Your task to perform on an android device: open app "Google News" (install if not already installed) Image 0: 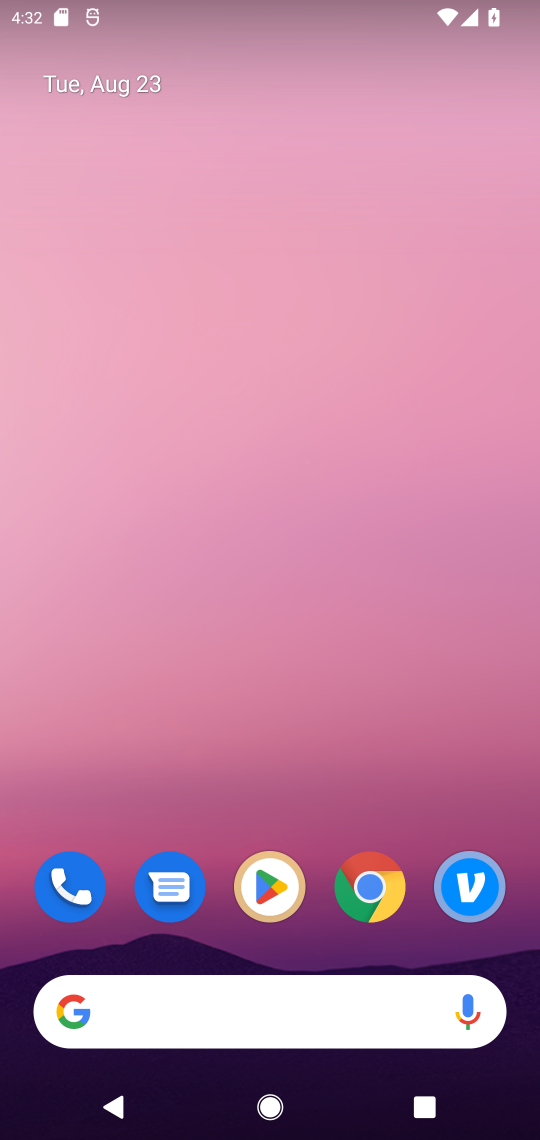
Step 0: click (277, 891)
Your task to perform on an android device: open app "Google News" (install if not already installed) Image 1: 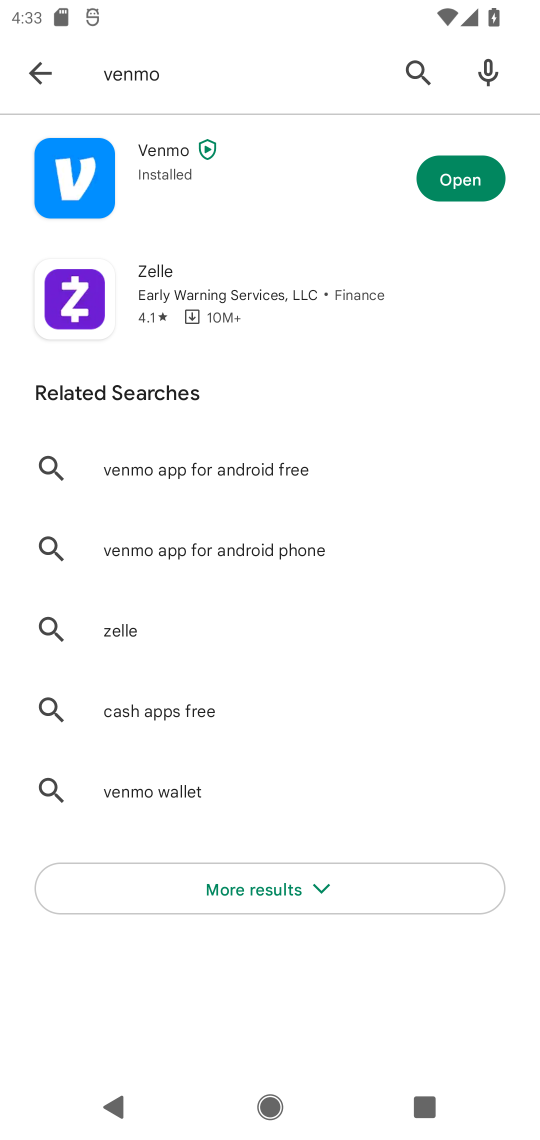
Step 1: click (48, 78)
Your task to perform on an android device: open app "Google News" (install if not already installed) Image 2: 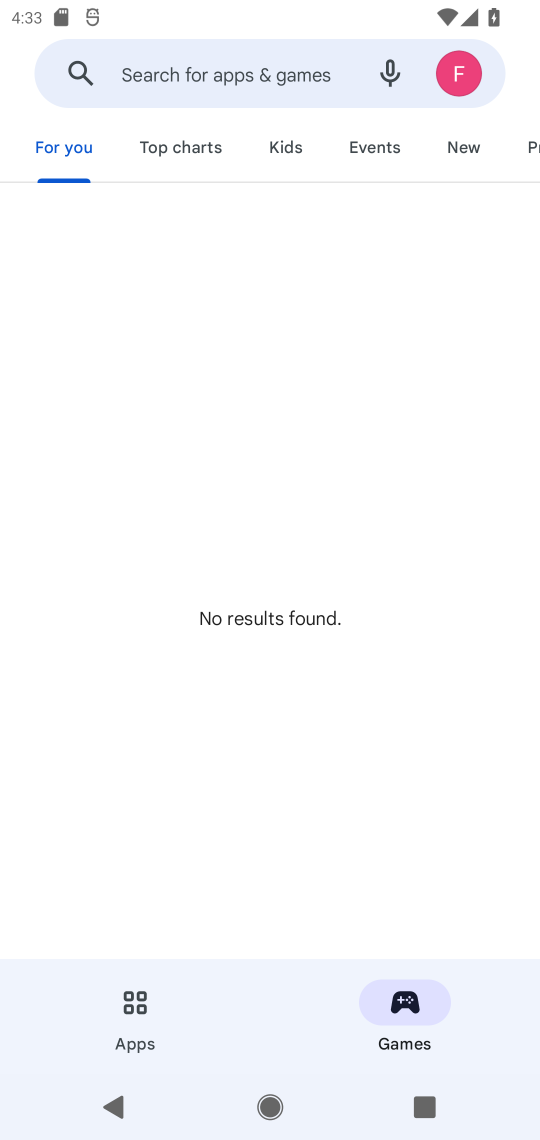
Step 2: click (161, 75)
Your task to perform on an android device: open app "Google News" (install if not already installed) Image 3: 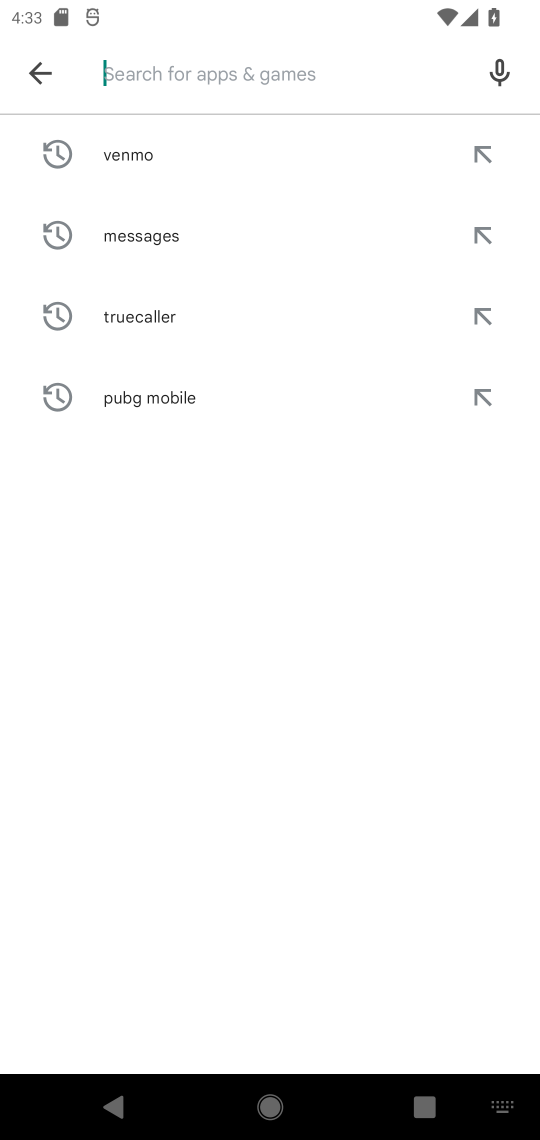
Step 3: type "Google News"
Your task to perform on an android device: open app "Google News" (install if not already installed) Image 4: 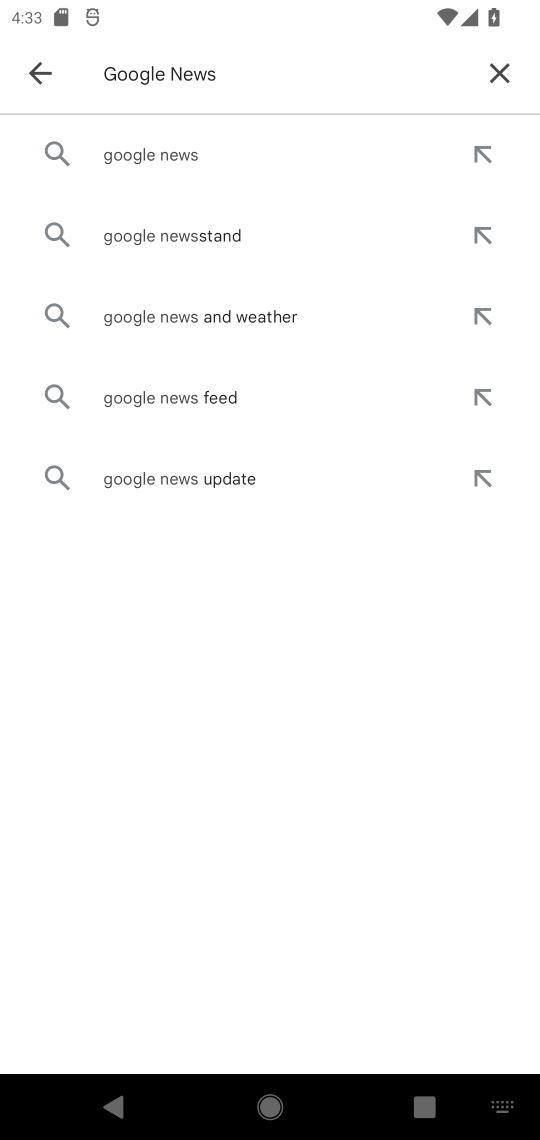
Step 4: click (147, 153)
Your task to perform on an android device: open app "Google News" (install if not already installed) Image 5: 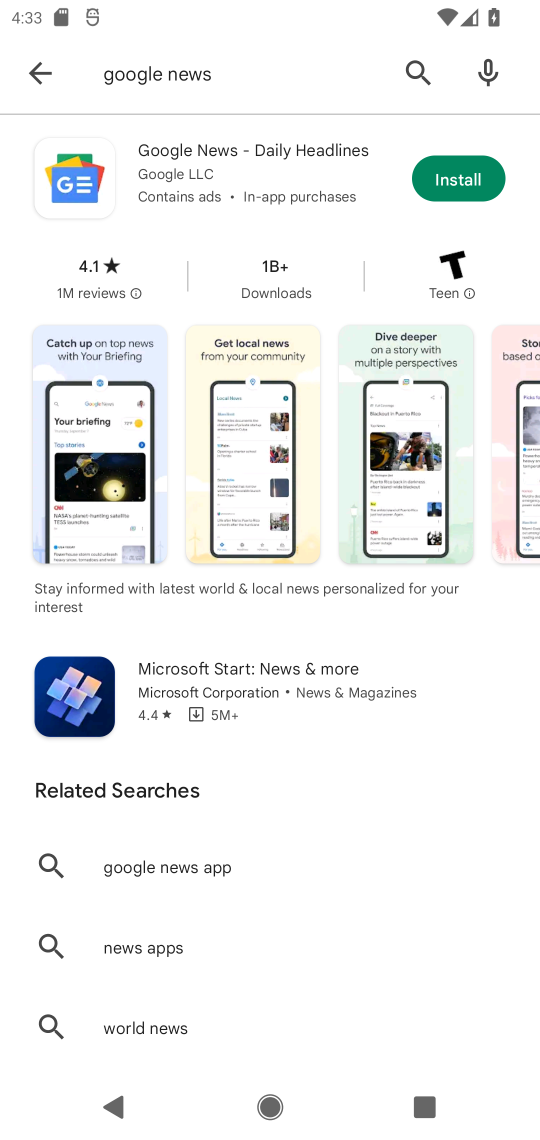
Step 5: click (466, 177)
Your task to perform on an android device: open app "Google News" (install if not already installed) Image 6: 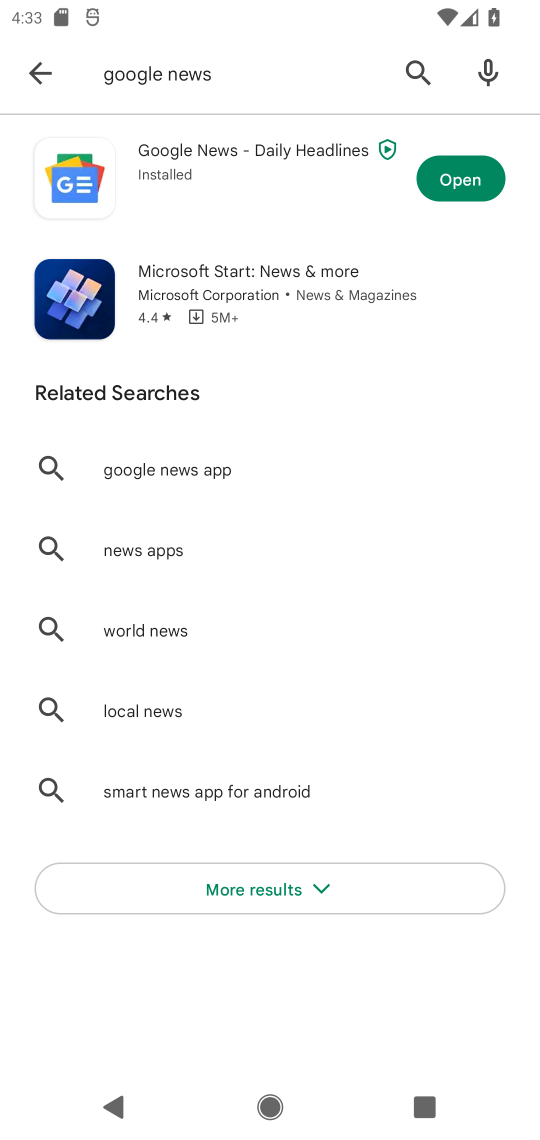
Step 6: click (442, 189)
Your task to perform on an android device: open app "Google News" (install if not already installed) Image 7: 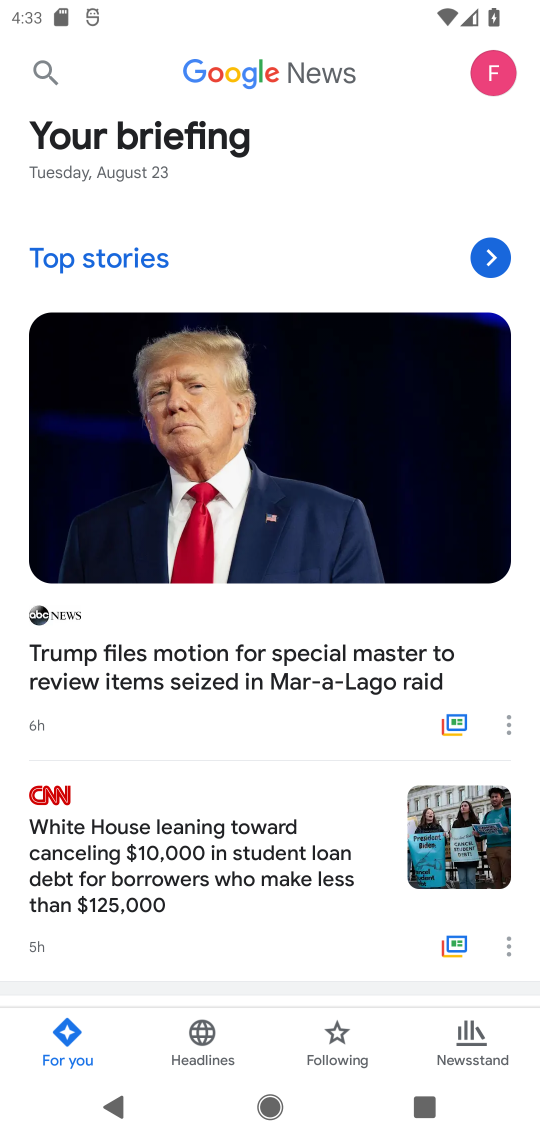
Step 7: task complete